Your task to perform on an android device: Open CNN.com Image 0: 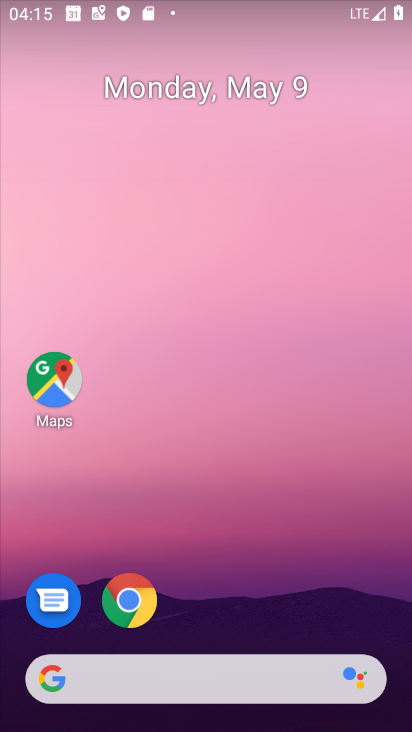
Step 0: drag from (161, 652) to (194, 18)
Your task to perform on an android device: Open CNN.com Image 1: 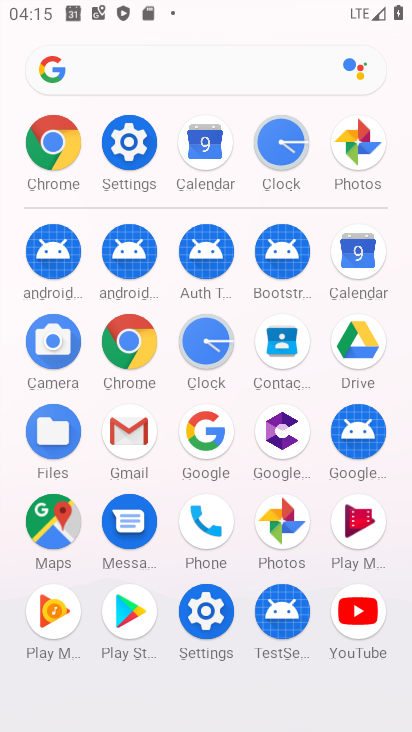
Step 1: click (138, 350)
Your task to perform on an android device: Open CNN.com Image 2: 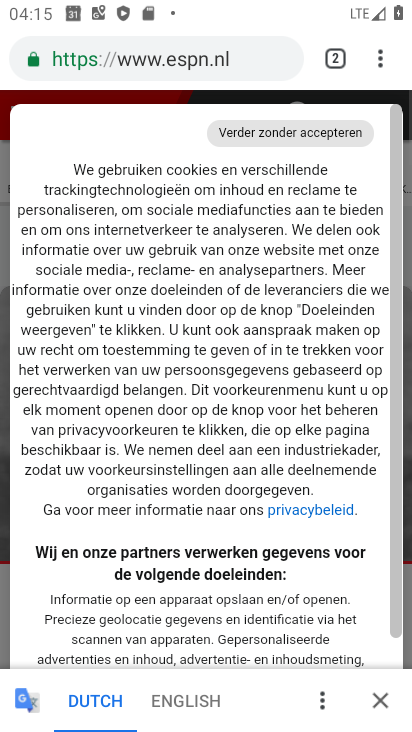
Step 2: click (189, 62)
Your task to perform on an android device: Open CNN.com Image 3: 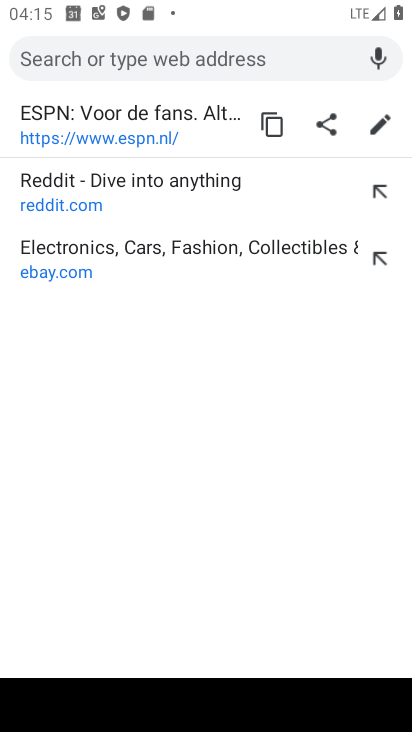
Step 3: type "cnn.com"
Your task to perform on an android device: Open CNN.com Image 4: 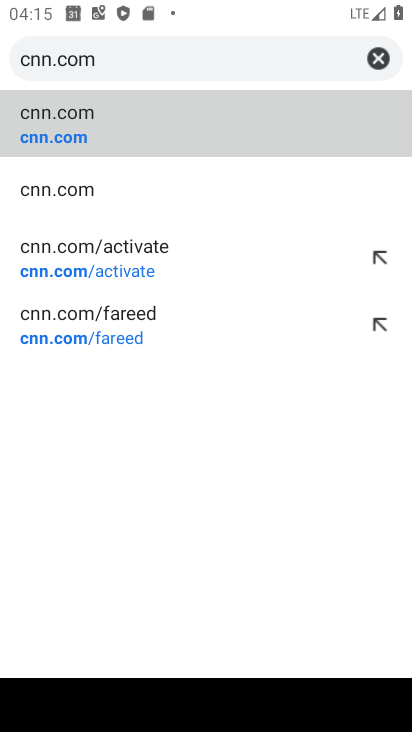
Step 4: click (82, 146)
Your task to perform on an android device: Open CNN.com Image 5: 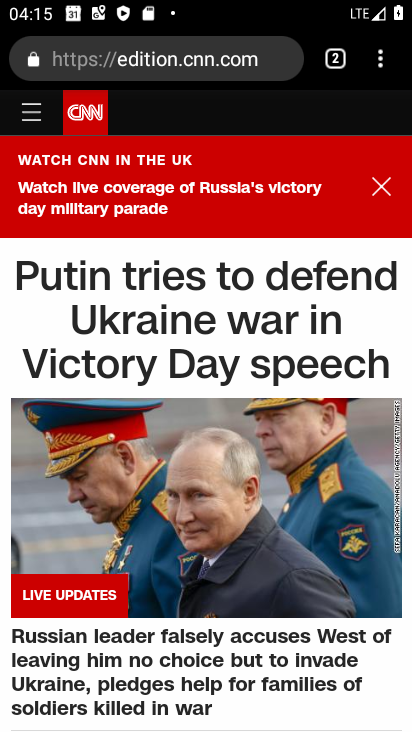
Step 5: task complete